Your task to perform on an android device: empty trash in the gmail app Image 0: 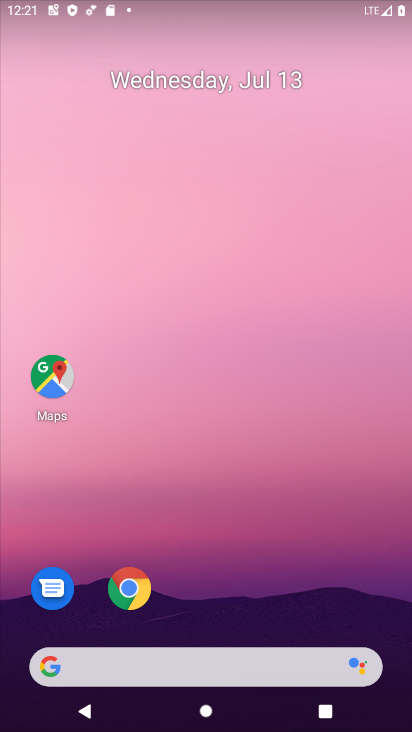
Step 0: drag from (389, 688) to (304, 178)
Your task to perform on an android device: empty trash in the gmail app Image 1: 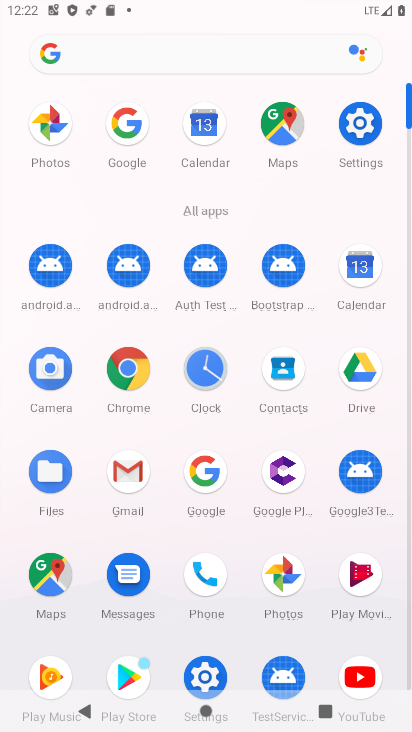
Step 1: click (129, 469)
Your task to perform on an android device: empty trash in the gmail app Image 2: 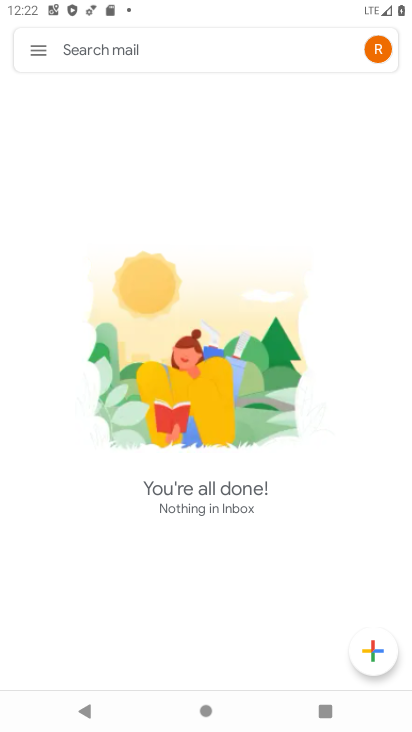
Step 2: click (34, 42)
Your task to perform on an android device: empty trash in the gmail app Image 3: 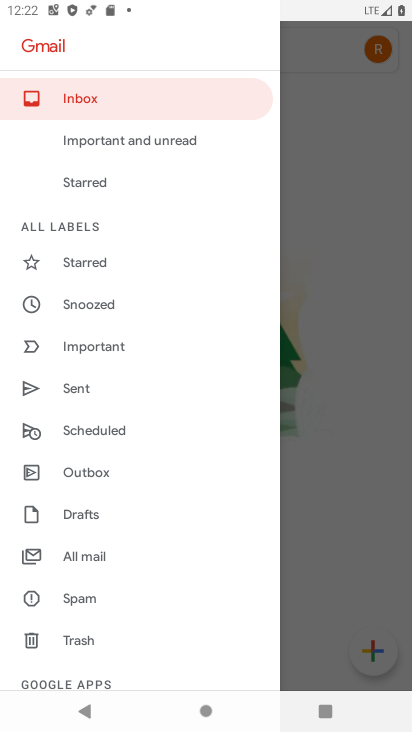
Step 3: click (73, 639)
Your task to perform on an android device: empty trash in the gmail app Image 4: 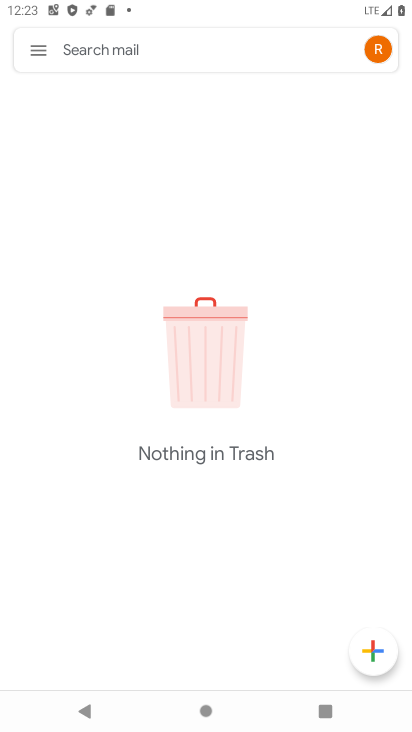
Step 4: task complete